Your task to perform on an android device: Go to Maps Image 0: 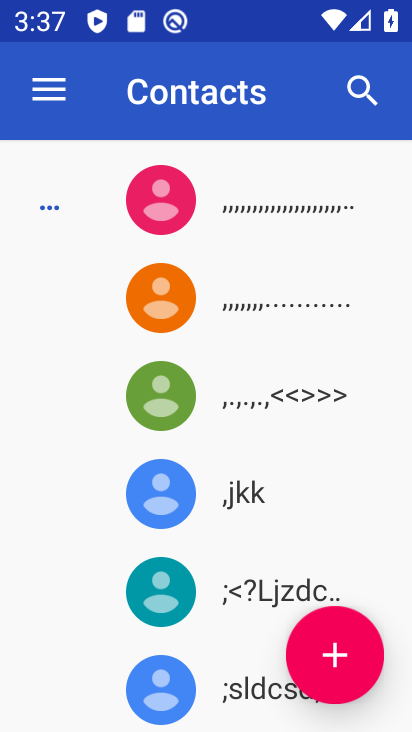
Step 0: press home button
Your task to perform on an android device: Go to Maps Image 1: 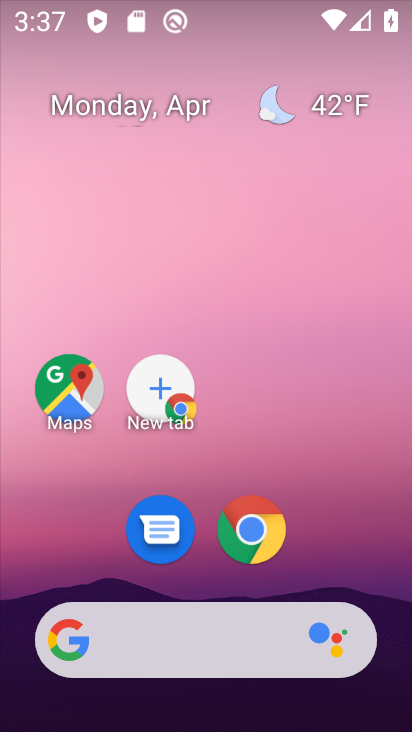
Step 1: click (81, 373)
Your task to perform on an android device: Go to Maps Image 2: 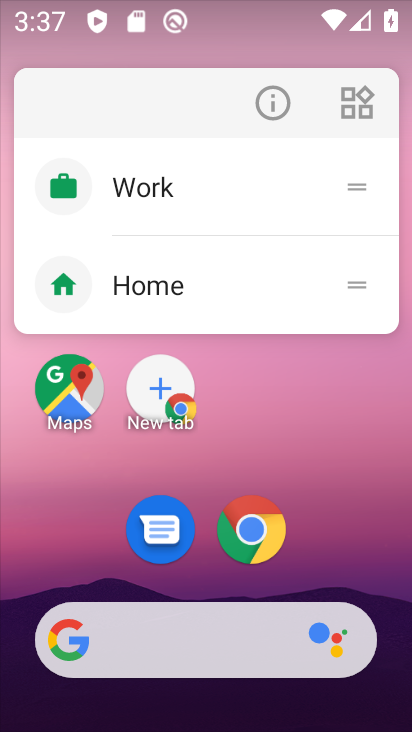
Step 2: click (62, 387)
Your task to perform on an android device: Go to Maps Image 3: 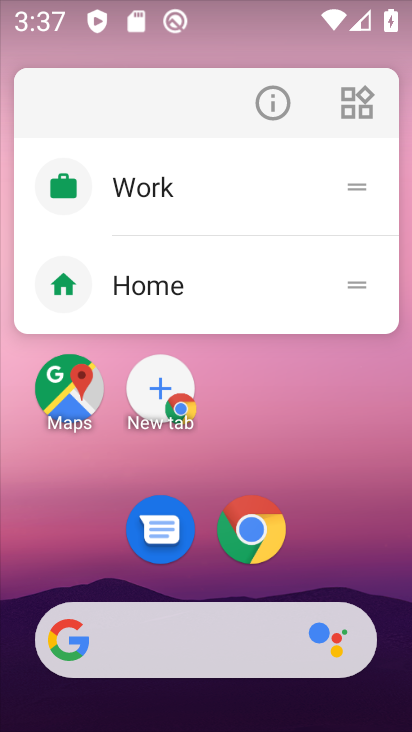
Step 3: click (62, 387)
Your task to perform on an android device: Go to Maps Image 4: 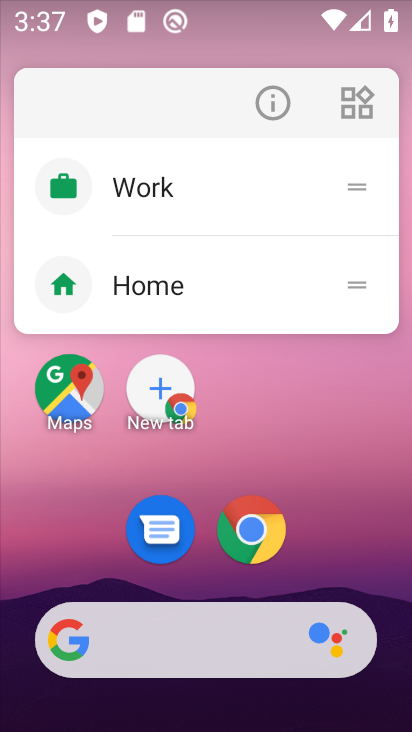
Step 4: click (62, 387)
Your task to perform on an android device: Go to Maps Image 5: 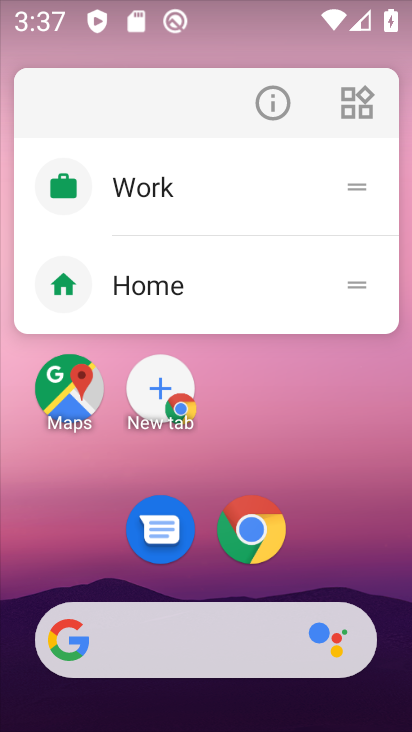
Step 5: click (64, 383)
Your task to perform on an android device: Go to Maps Image 6: 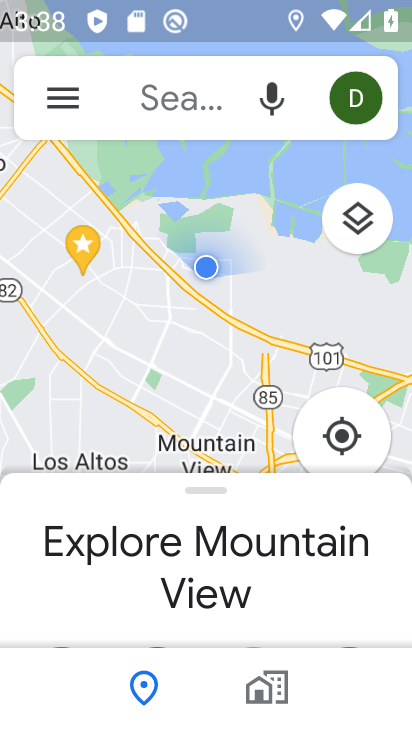
Step 6: task complete